Your task to perform on an android device: Open calendar and show me the third week of next month Image 0: 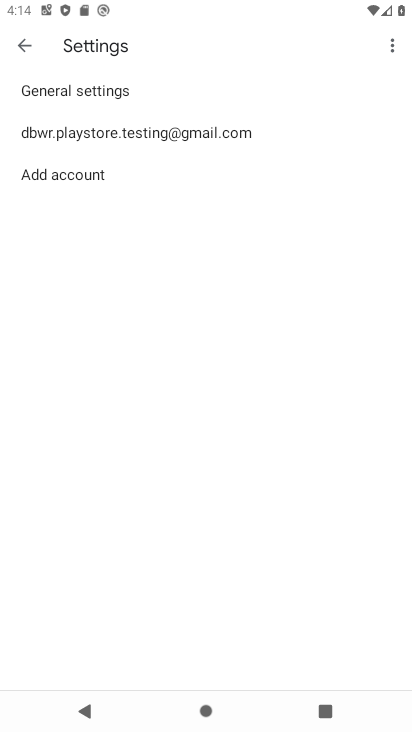
Step 0: press home button
Your task to perform on an android device: Open calendar and show me the third week of next month Image 1: 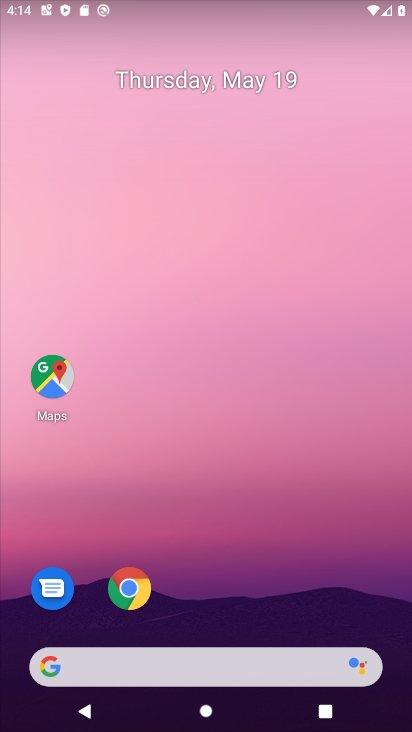
Step 1: click (150, 85)
Your task to perform on an android device: Open calendar and show me the third week of next month Image 2: 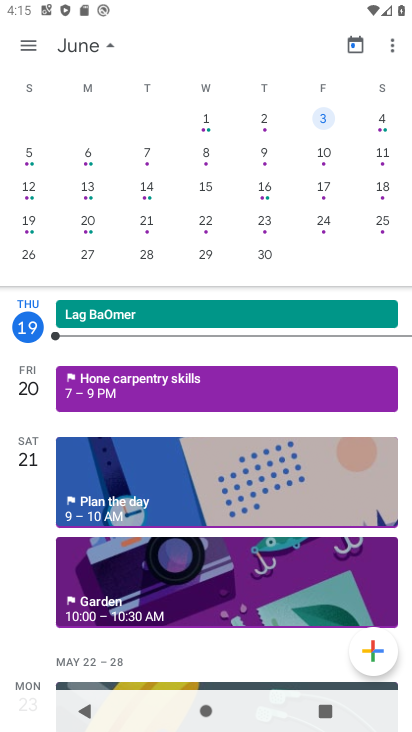
Step 2: drag from (333, 259) to (18, 333)
Your task to perform on an android device: Open calendar and show me the third week of next month Image 3: 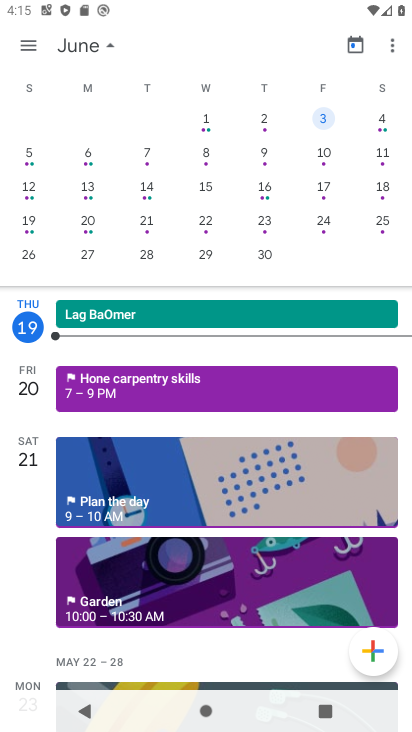
Step 3: click (261, 196)
Your task to perform on an android device: Open calendar and show me the third week of next month Image 4: 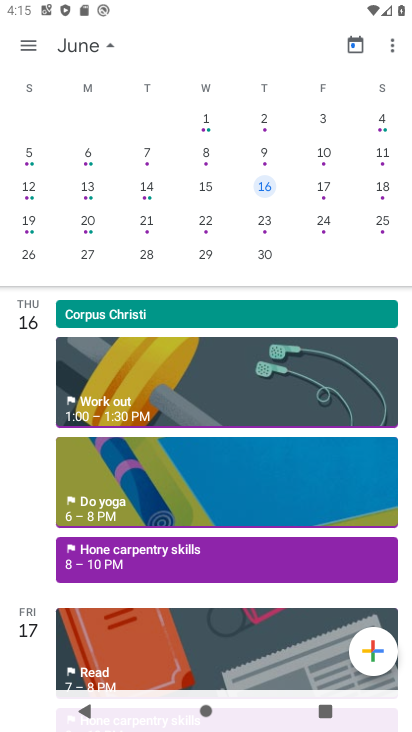
Step 4: task complete